Your task to perform on an android device: Show me the alarms in the clock app Image 0: 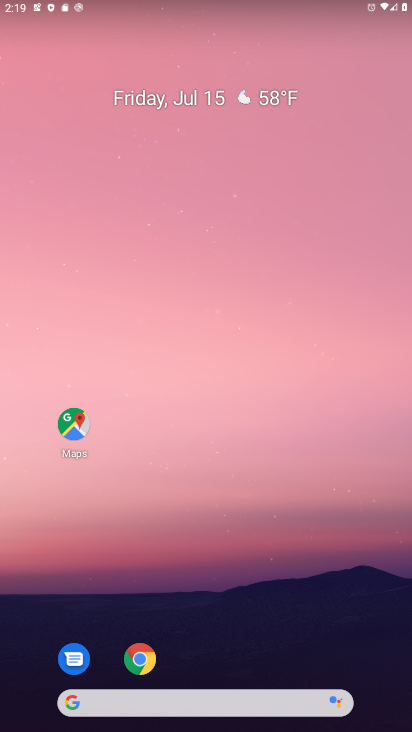
Step 0: drag from (214, 728) to (188, 241)
Your task to perform on an android device: Show me the alarms in the clock app Image 1: 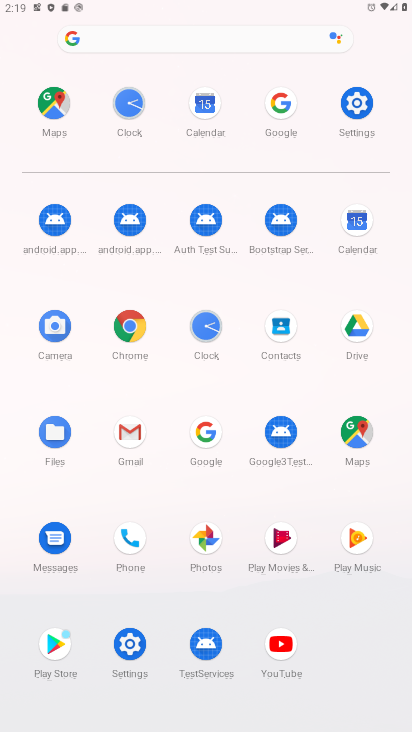
Step 1: click (215, 326)
Your task to perform on an android device: Show me the alarms in the clock app Image 2: 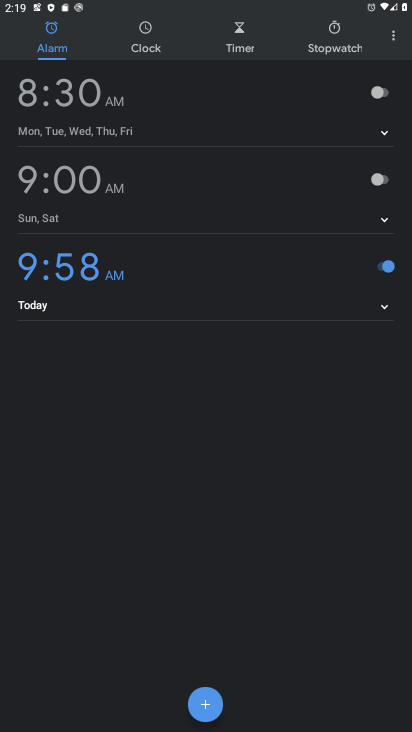
Step 2: task complete